Your task to perform on an android device: toggle javascript in the chrome app Image 0: 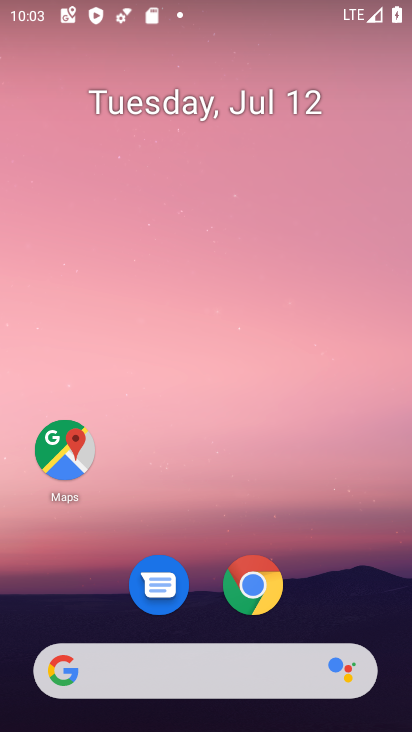
Step 0: click (246, 598)
Your task to perform on an android device: toggle javascript in the chrome app Image 1: 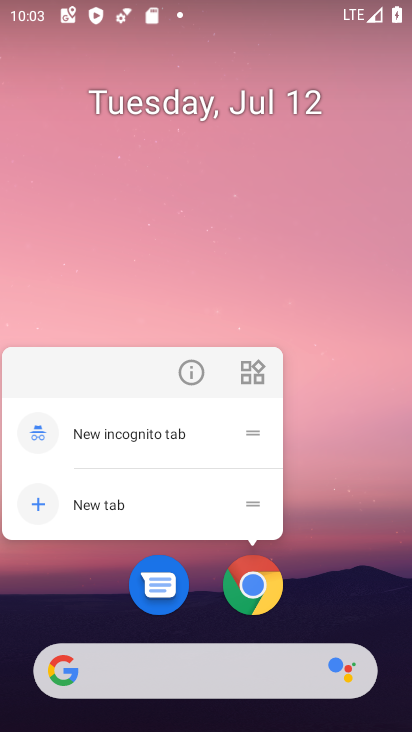
Step 1: click (254, 587)
Your task to perform on an android device: toggle javascript in the chrome app Image 2: 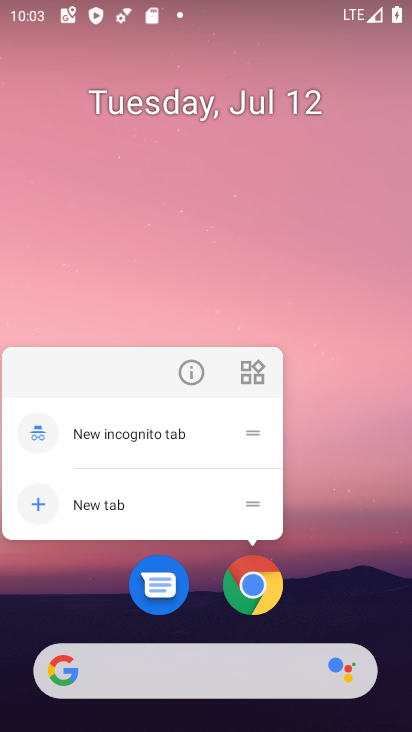
Step 2: click (254, 588)
Your task to perform on an android device: toggle javascript in the chrome app Image 3: 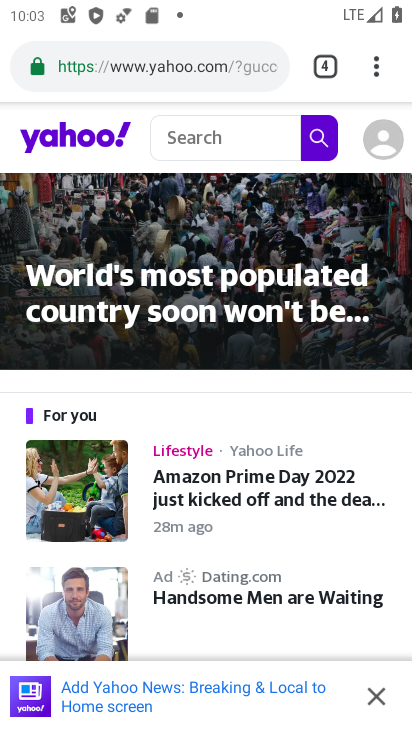
Step 3: drag from (379, 69) to (240, 590)
Your task to perform on an android device: toggle javascript in the chrome app Image 4: 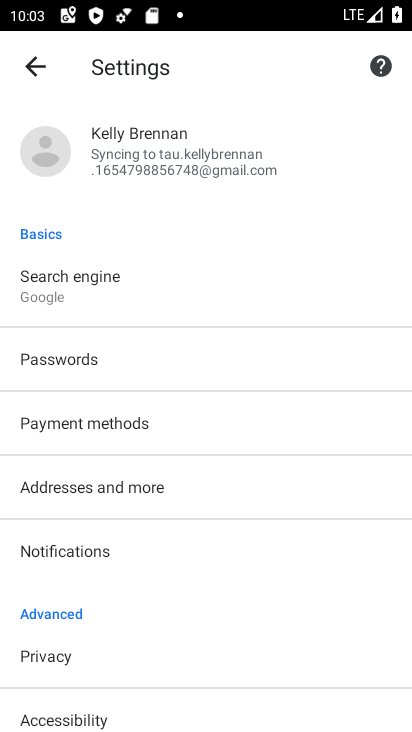
Step 4: drag from (202, 645) to (248, 224)
Your task to perform on an android device: toggle javascript in the chrome app Image 5: 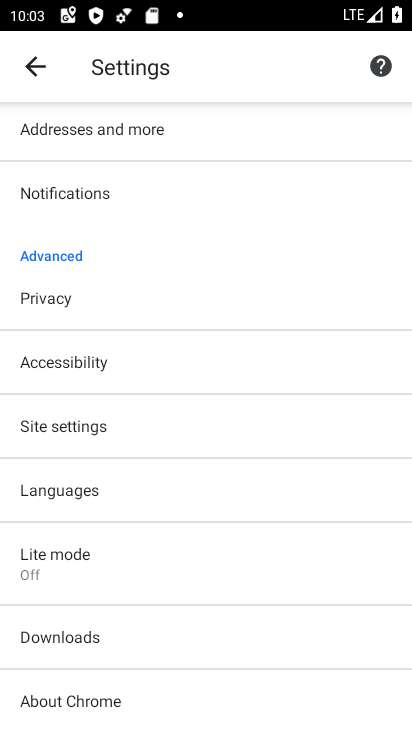
Step 5: click (109, 439)
Your task to perform on an android device: toggle javascript in the chrome app Image 6: 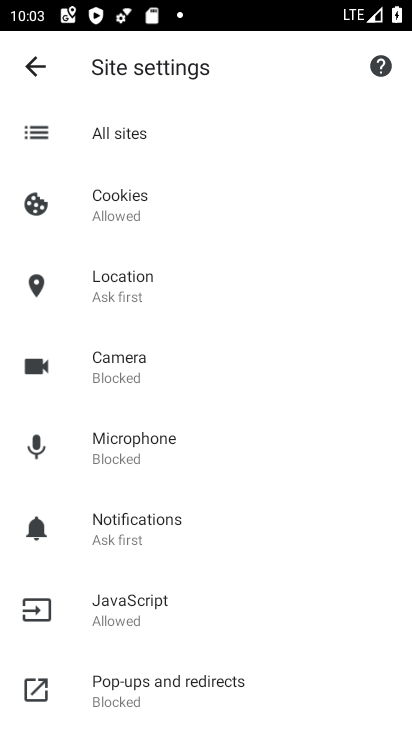
Step 6: click (149, 614)
Your task to perform on an android device: toggle javascript in the chrome app Image 7: 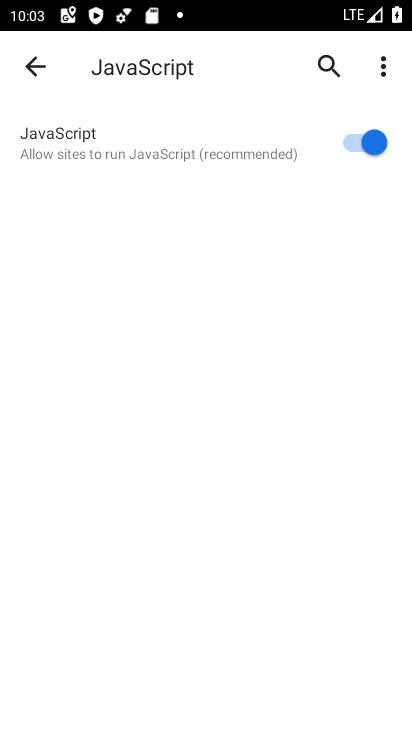
Step 7: click (346, 137)
Your task to perform on an android device: toggle javascript in the chrome app Image 8: 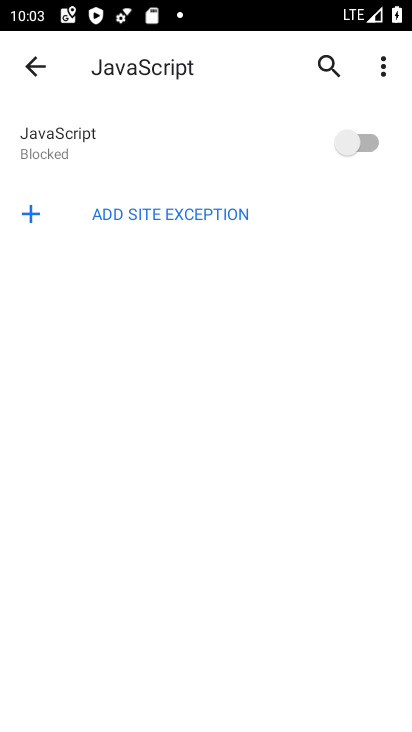
Step 8: task complete